Your task to perform on an android device: allow notifications from all sites in the chrome app Image 0: 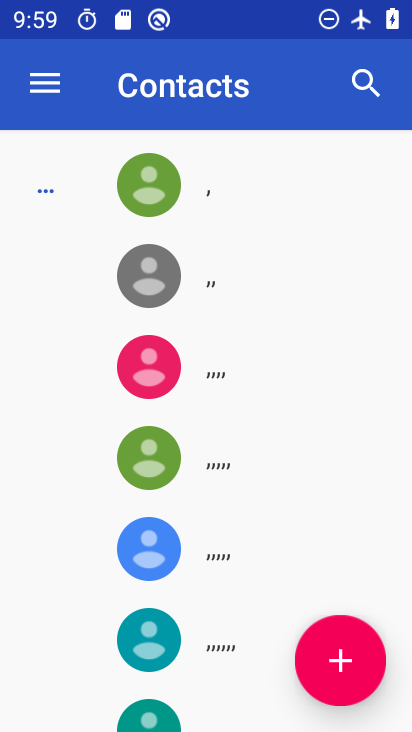
Step 0: press home button
Your task to perform on an android device: allow notifications from all sites in the chrome app Image 1: 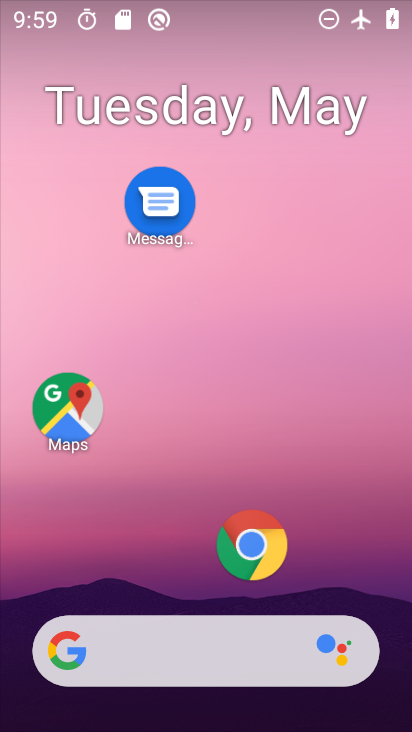
Step 1: drag from (176, 572) to (240, 122)
Your task to perform on an android device: allow notifications from all sites in the chrome app Image 2: 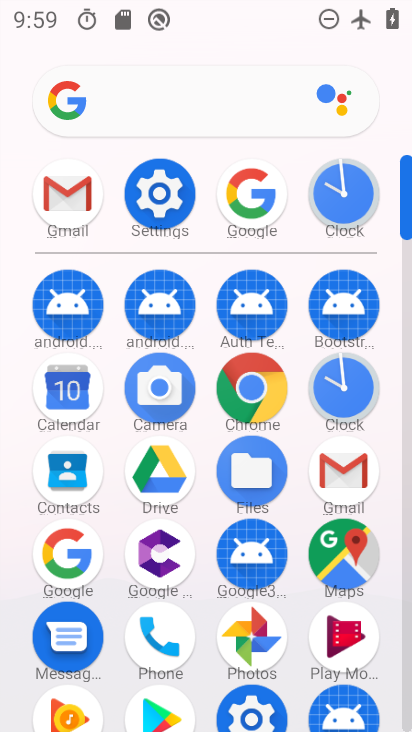
Step 2: click (250, 377)
Your task to perform on an android device: allow notifications from all sites in the chrome app Image 3: 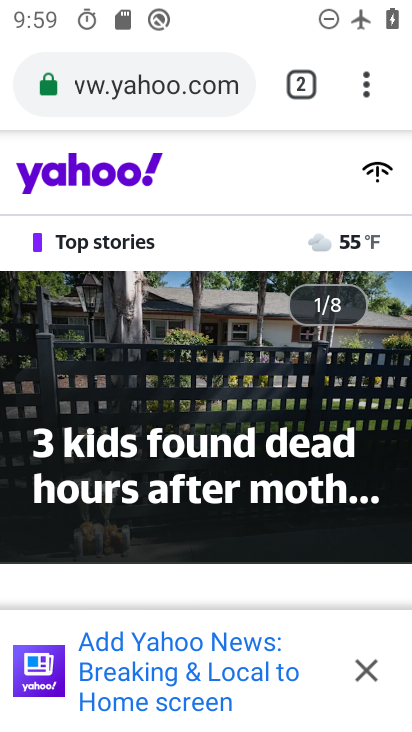
Step 3: drag from (355, 90) to (164, 593)
Your task to perform on an android device: allow notifications from all sites in the chrome app Image 4: 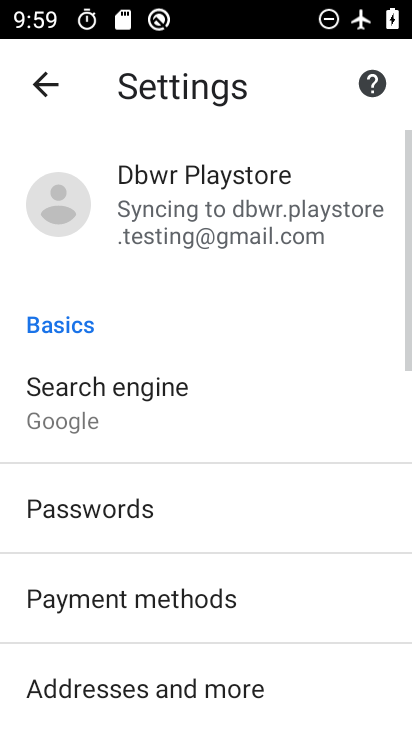
Step 4: drag from (153, 643) to (228, 264)
Your task to perform on an android device: allow notifications from all sites in the chrome app Image 5: 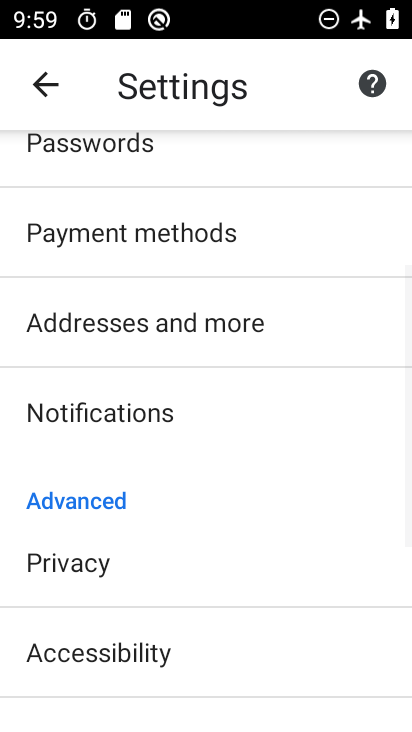
Step 5: drag from (166, 606) to (211, 361)
Your task to perform on an android device: allow notifications from all sites in the chrome app Image 6: 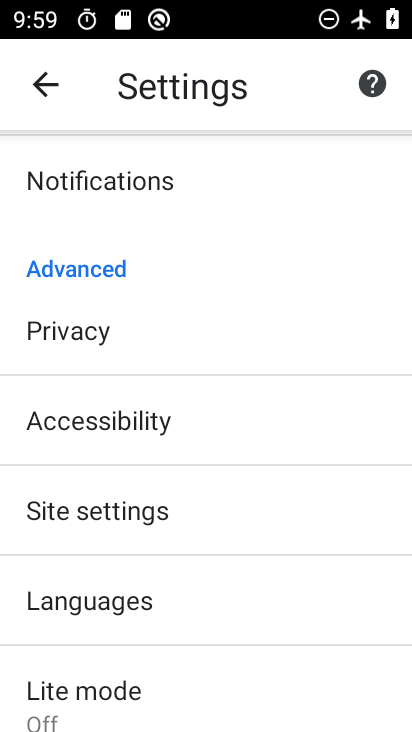
Step 6: click (145, 493)
Your task to perform on an android device: allow notifications from all sites in the chrome app Image 7: 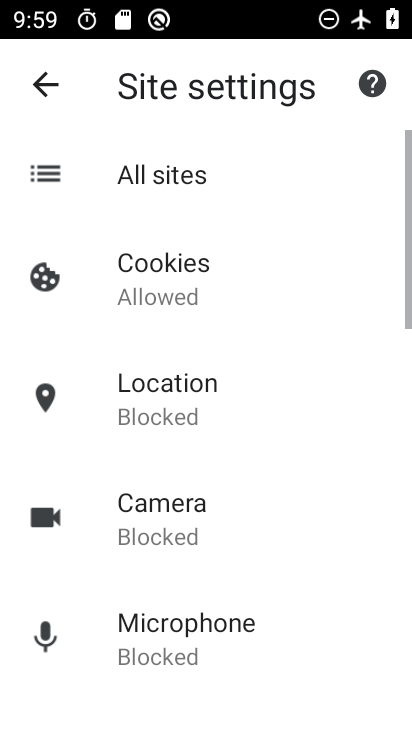
Step 7: click (158, 165)
Your task to perform on an android device: allow notifications from all sites in the chrome app Image 8: 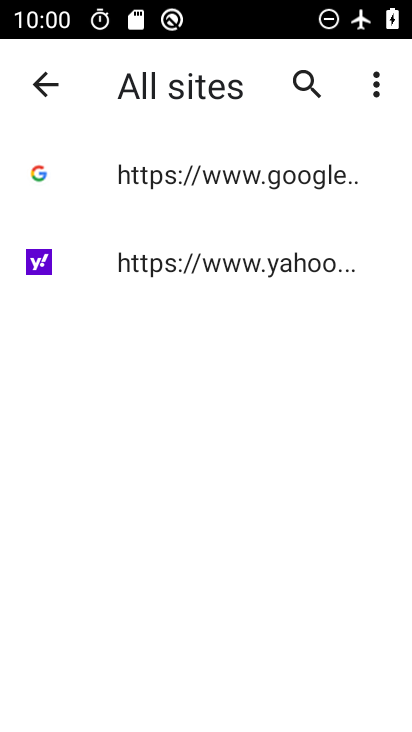
Step 8: click (154, 174)
Your task to perform on an android device: allow notifications from all sites in the chrome app Image 9: 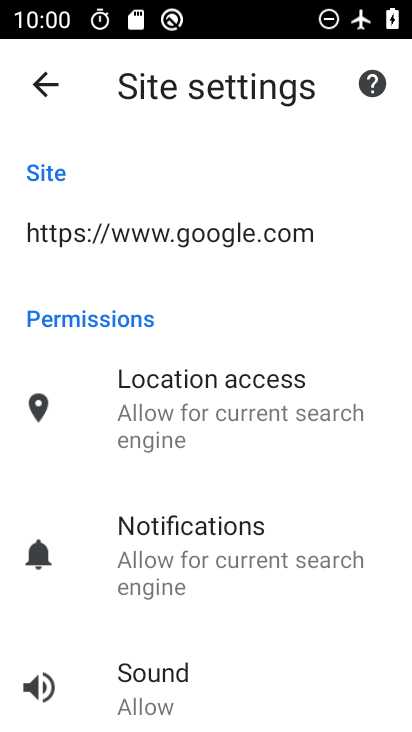
Step 9: click (195, 515)
Your task to perform on an android device: allow notifications from all sites in the chrome app Image 10: 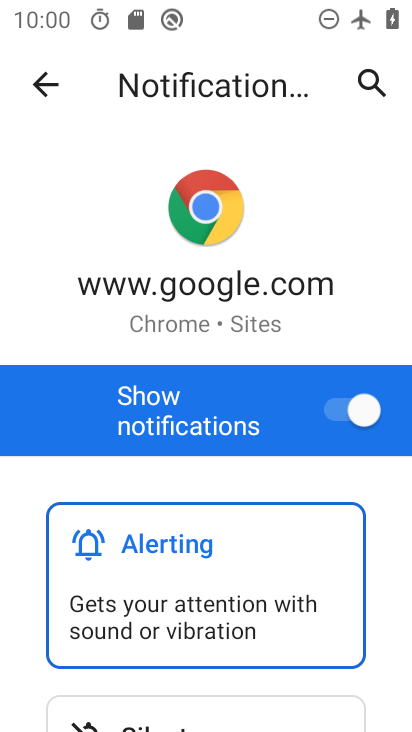
Step 10: task complete